Your task to perform on an android device: toggle improve location accuracy Image 0: 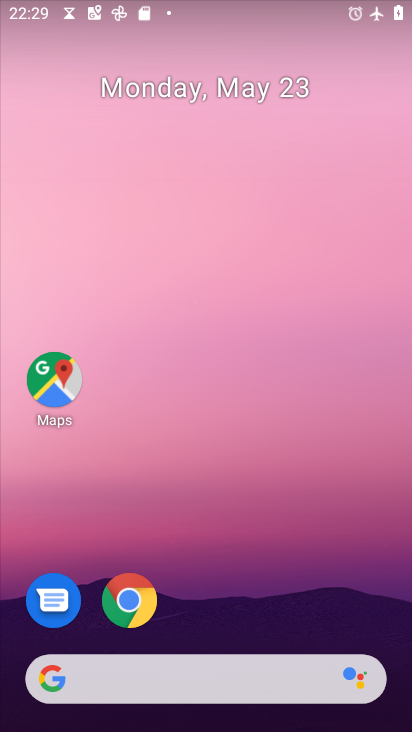
Step 0: drag from (218, 724) to (170, 61)
Your task to perform on an android device: toggle improve location accuracy Image 1: 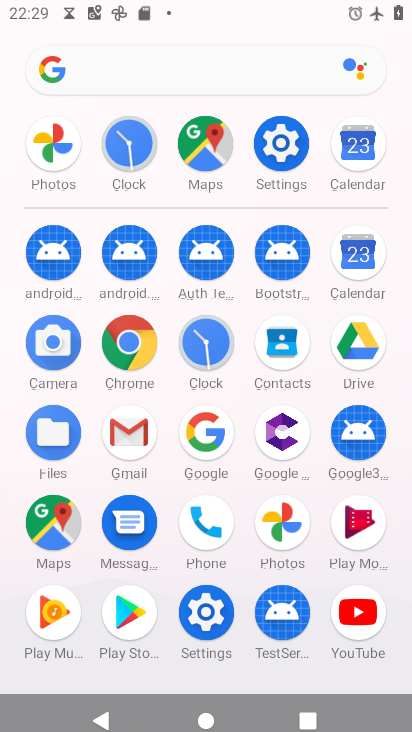
Step 1: click (273, 141)
Your task to perform on an android device: toggle improve location accuracy Image 2: 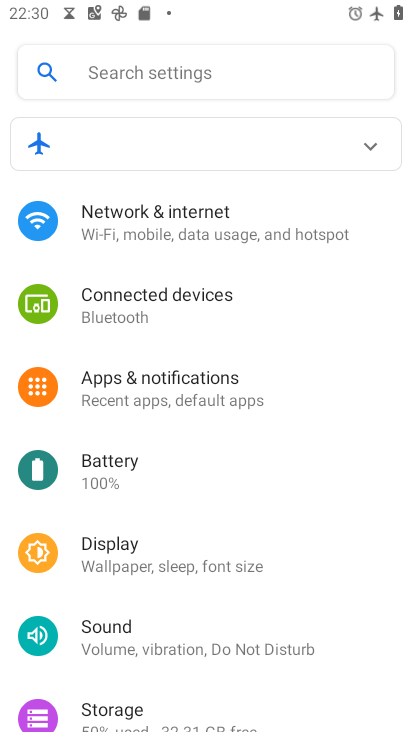
Step 2: drag from (140, 672) to (134, 261)
Your task to perform on an android device: toggle improve location accuracy Image 3: 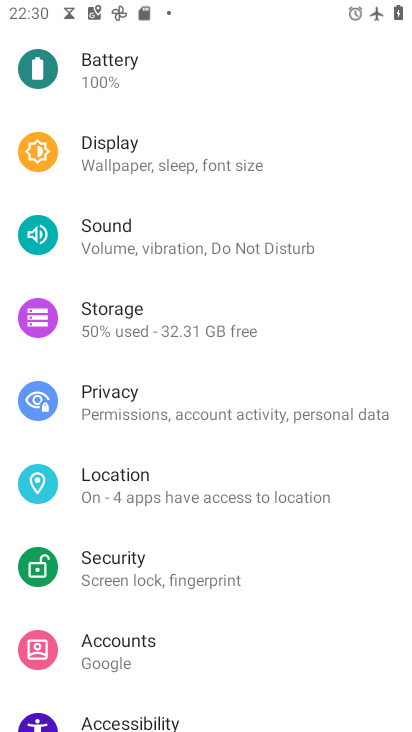
Step 3: click (128, 489)
Your task to perform on an android device: toggle improve location accuracy Image 4: 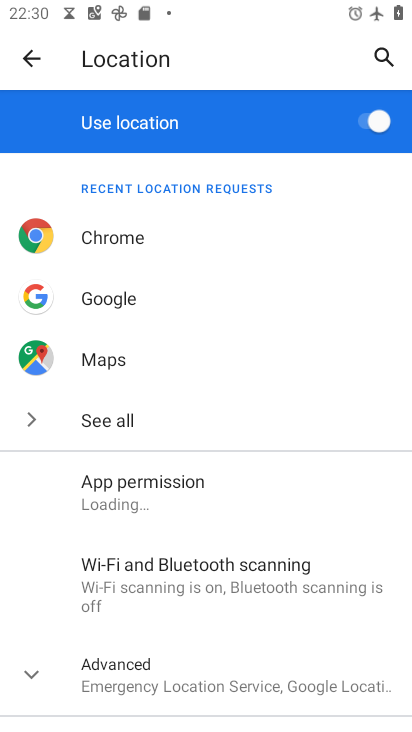
Step 4: drag from (153, 660) to (185, 383)
Your task to perform on an android device: toggle improve location accuracy Image 5: 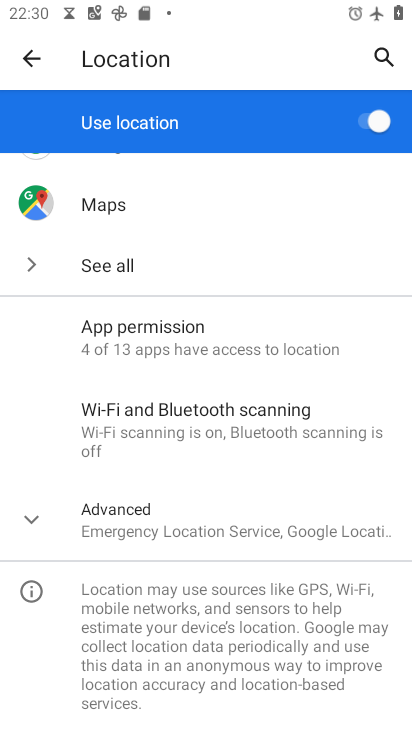
Step 5: click (165, 522)
Your task to perform on an android device: toggle improve location accuracy Image 6: 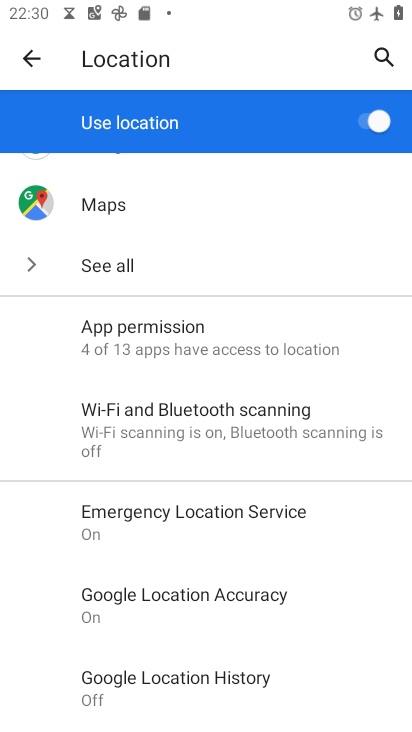
Step 6: click (172, 595)
Your task to perform on an android device: toggle improve location accuracy Image 7: 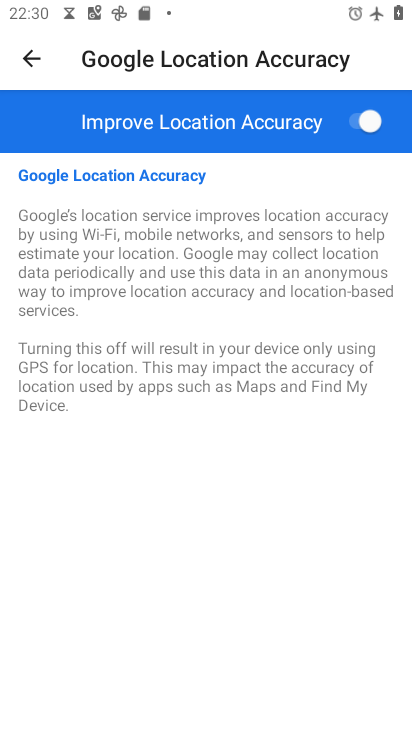
Step 7: click (354, 116)
Your task to perform on an android device: toggle improve location accuracy Image 8: 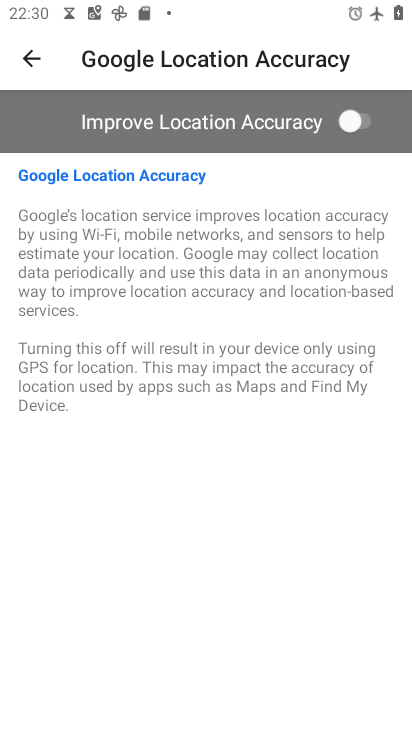
Step 8: task complete